Your task to perform on an android device: turn off notifications in google photos Image 0: 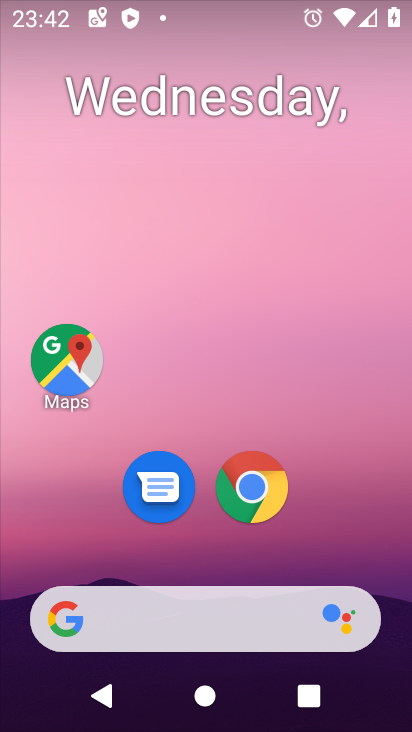
Step 0: drag from (360, 572) to (379, 27)
Your task to perform on an android device: turn off notifications in google photos Image 1: 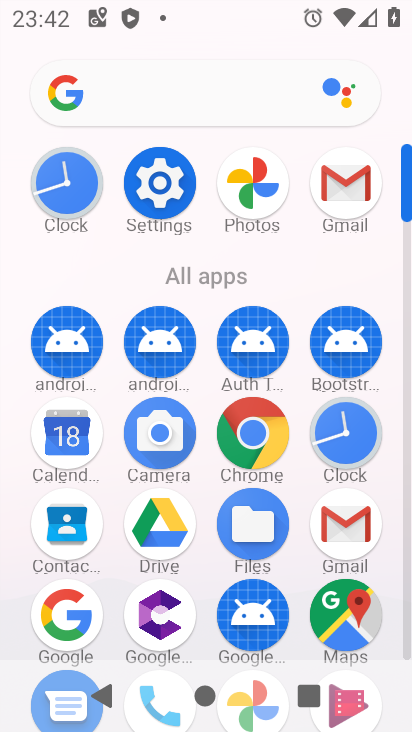
Step 1: click (255, 185)
Your task to perform on an android device: turn off notifications in google photos Image 2: 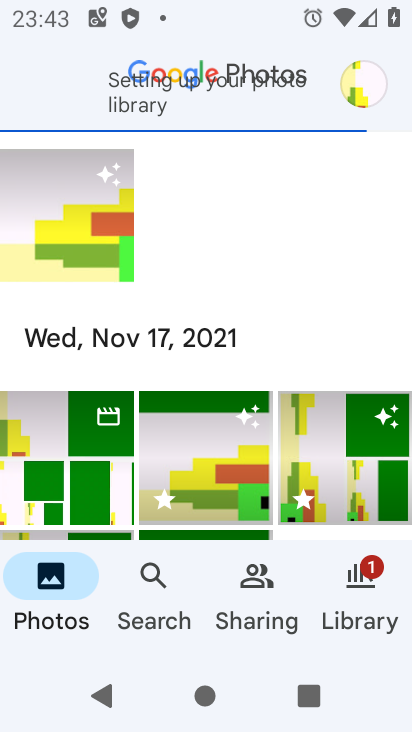
Step 2: click (364, 88)
Your task to perform on an android device: turn off notifications in google photos Image 3: 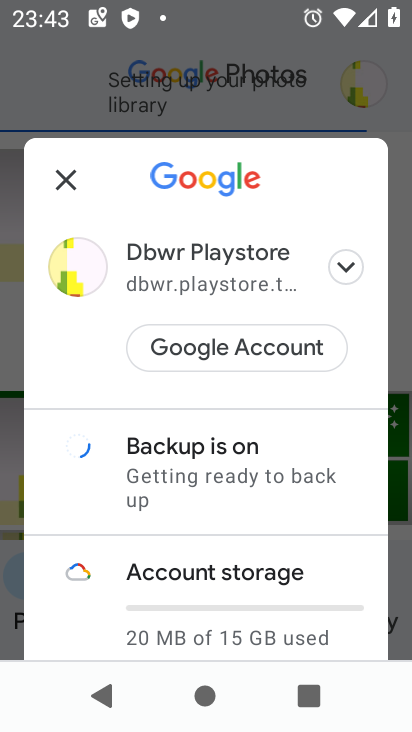
Step 3: drag from (204, 524) to (197, 172)
Your task to perform on an android device: turn off notifications in google photos Image 4: 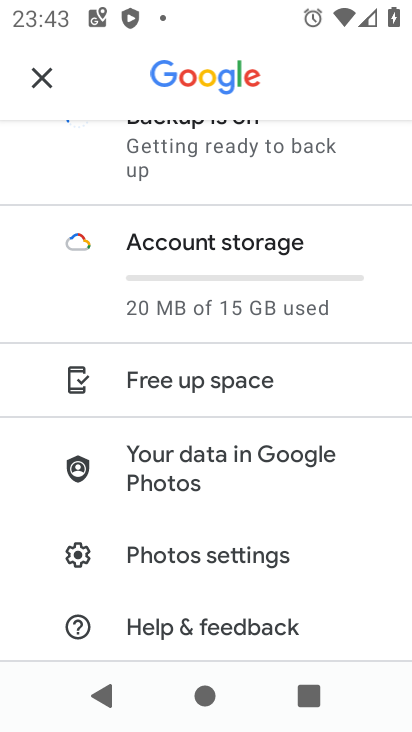
Step 4: click (185, 559)
Your task to perform on an android device: turn off notifications in google photos Image 5: 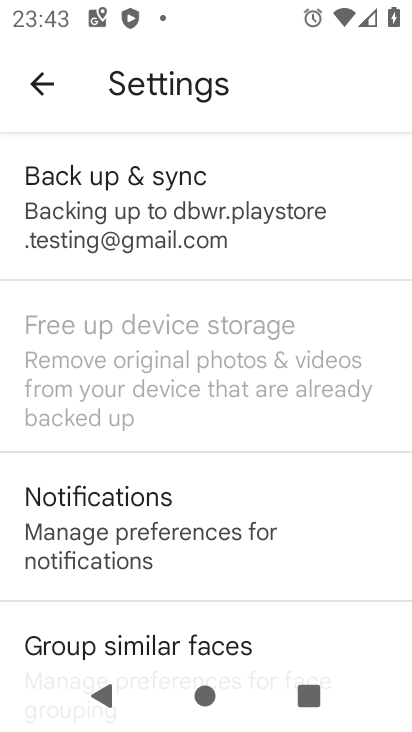
Step 5: click (97, 554)
Your task to perform on an android device: turn off notifications in google photos Image 6: 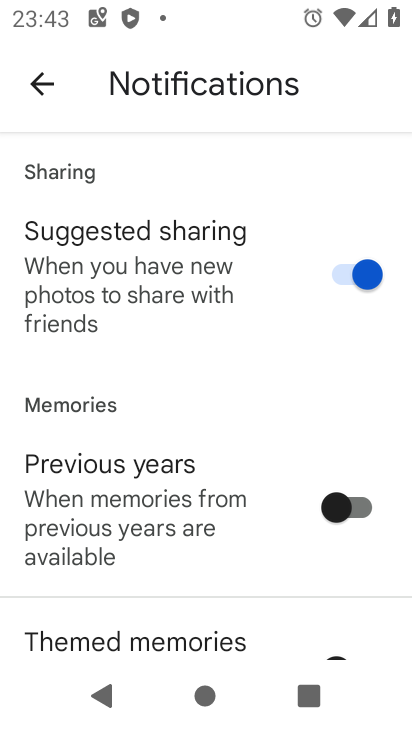
Step 6: drag from (185, 551) to (202, 104)
Your task to perform on an android device: turn off notifications in google photos Image 7: 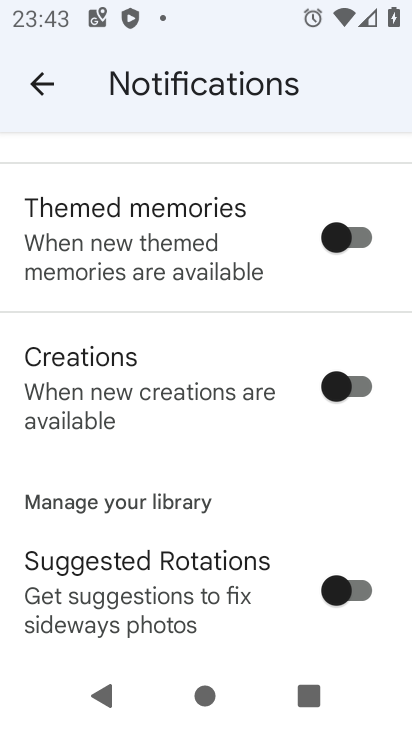
Step 7: drag from (136, 499) to (153, 106)
Your task to perform on an android device: turn off notifications in google photos Image 8: 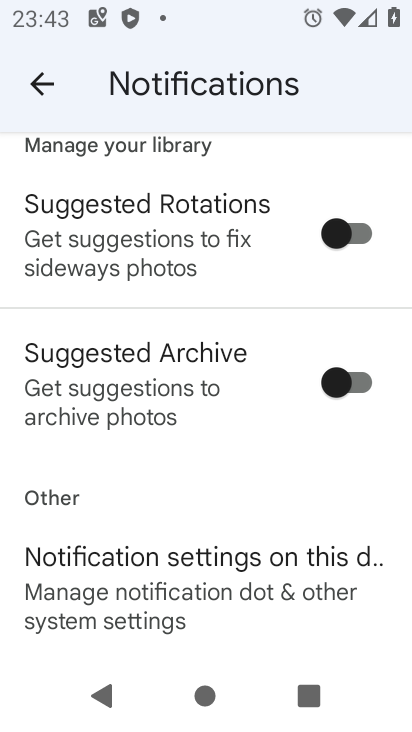
Step 8: drag from (153, 403) to (155, 146)
Your task to perform on an android device: turn off notifications in google photos Image 9: 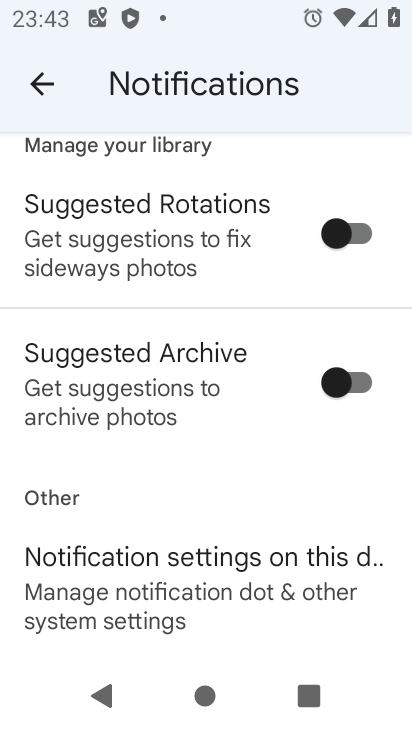
Step 9: click (111, 571)
Your task to perform on an android device: turn off notifications in google photos Image 10: 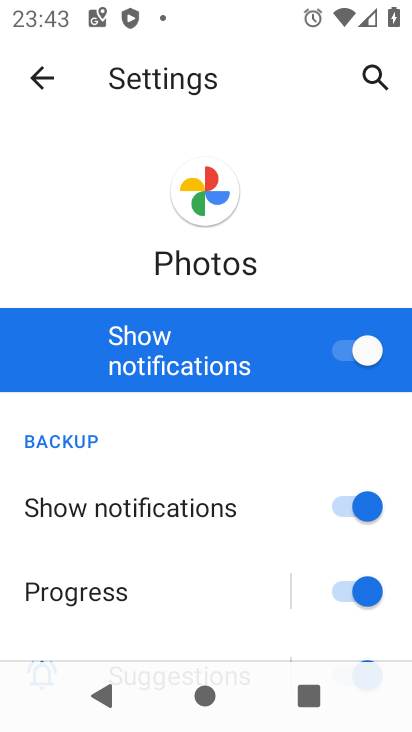
Step 10: click (355, 356)
Your task to perform on an android device: turn off notifications in google photos Image 11: 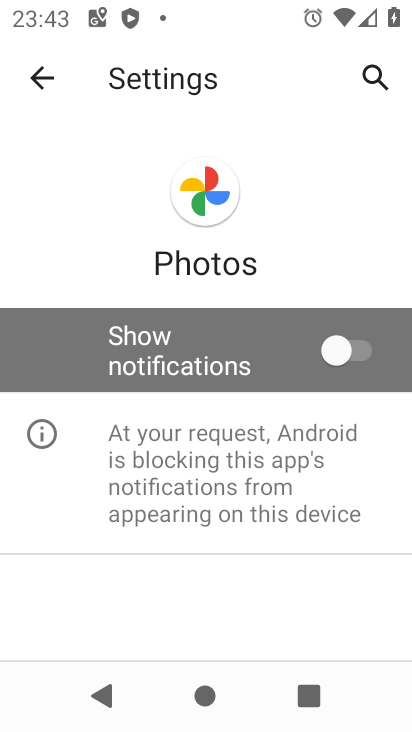
Step 11: task complete